Your task to perform on an android device: Search for sushi restaurants on Maps Image 0: 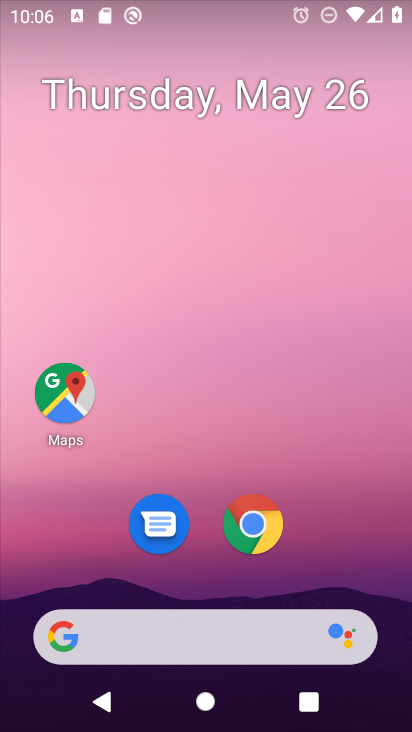
Step 0: click (67, 412)
Your task to perform on an android device: Search for sushi restaurants on Maps Image 1: 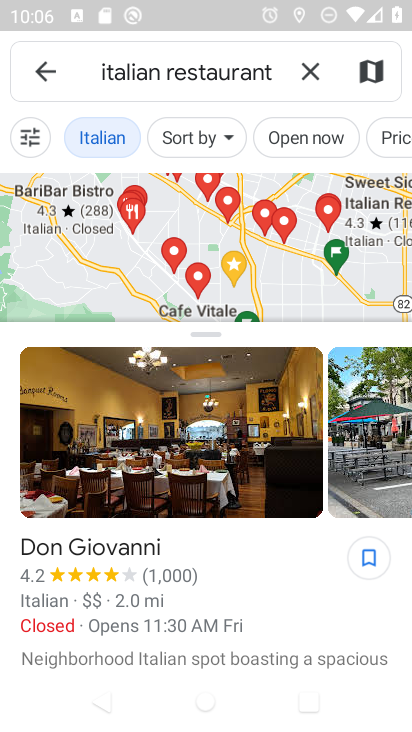
Step 1: click (313, 68)
Your task to perform on an android device: Search for sushi restaurants on Maps Image 2: 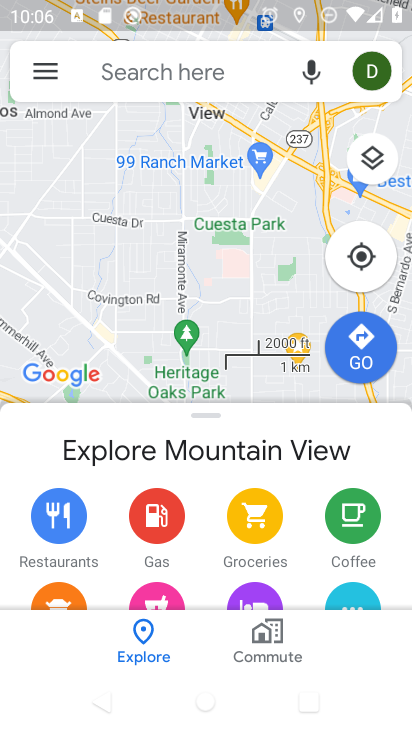
Step 2: click (224, 70)
Your task to perform on an android device: Search for sushi restaurants on Maps Image 3: 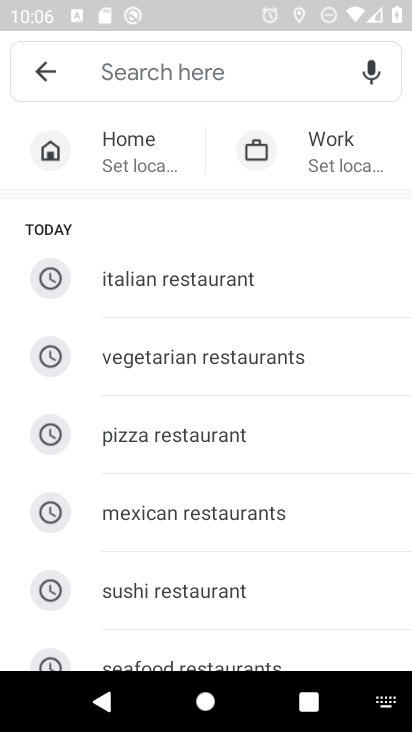
Step 3: click (222, 576)
Your task to perform on an android device: Search for sushi restaurants on Maps Image 4: 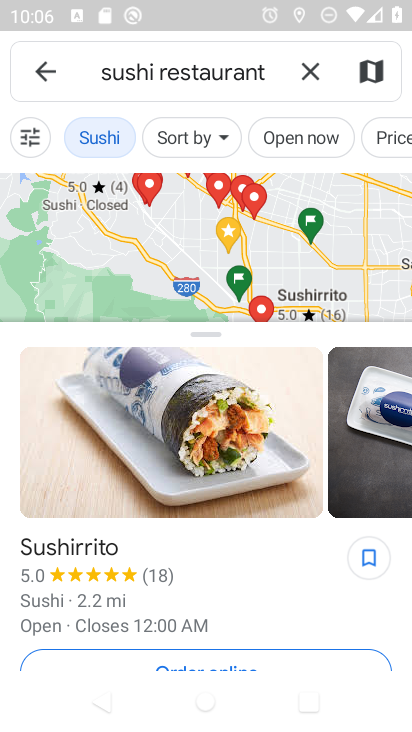
Step 4: task complete